Your task to perform on an android device: Open notification settings Image 0: 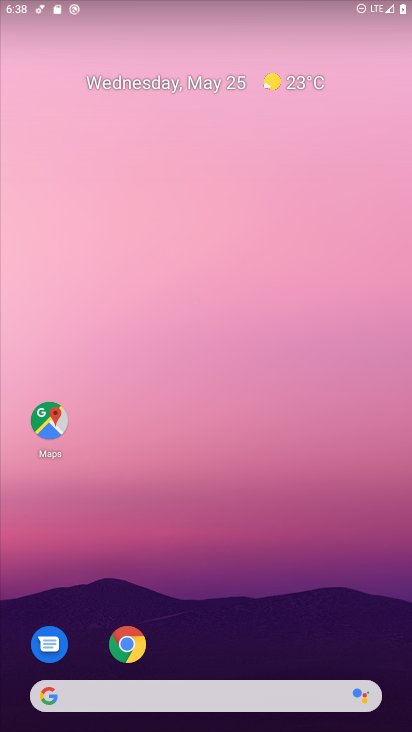
Step 0: drag from (384, 644) to (301, 31)
Your task to perform on an android device: Open notification settings Image 1: 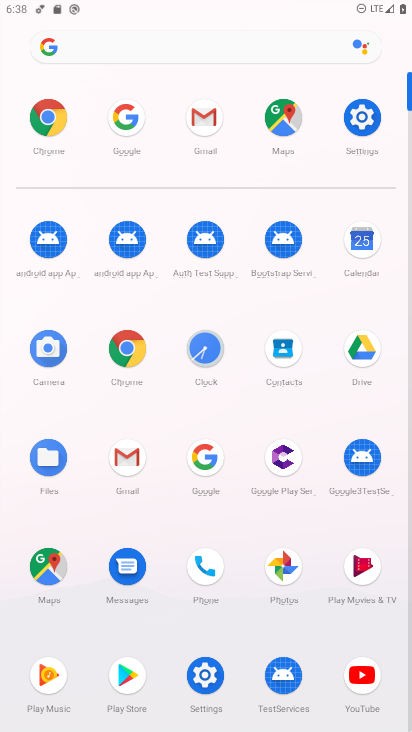
Step 1: click (207, 670)
Your task to perform on an android device: Open notification settings Image 2: 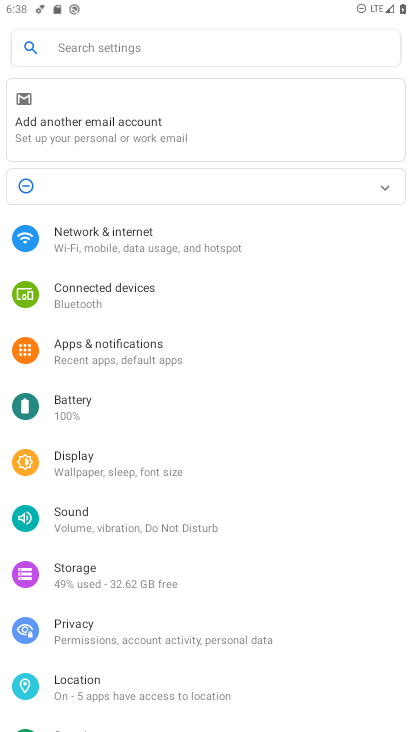
Step 2: click (187, 352)
Your task to perform on an android device: Open notification settings Image 3: 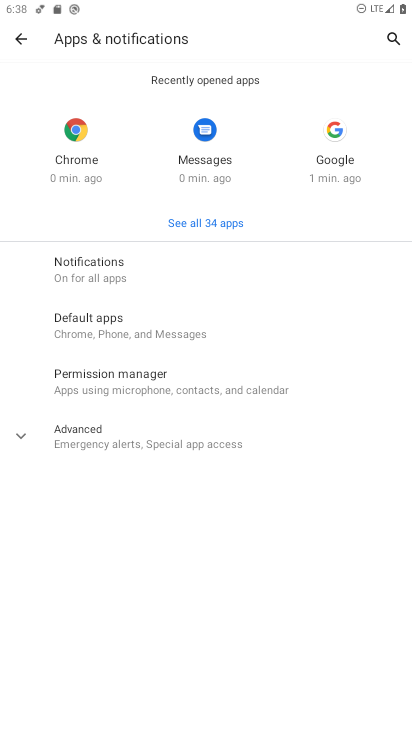
Step 3: click (182, 285)
Your task to perform on an android device: Open notification settings Image 4: 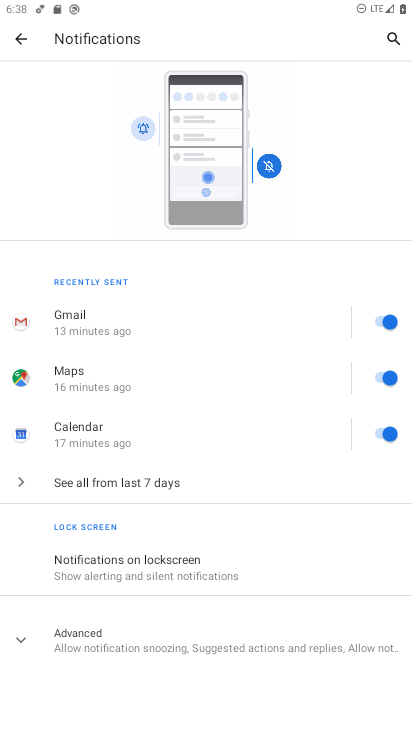
Step 4: task complete